Your task to perform on an android device: Turn on the flashlight Image 0: 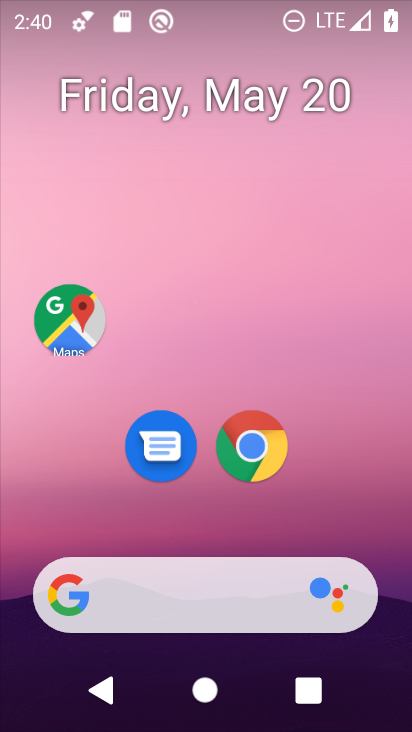
Step 0: drag from (204, 4) to (200, 574)
Your task to perform on an android device: Turn on the flashlight Image 1: 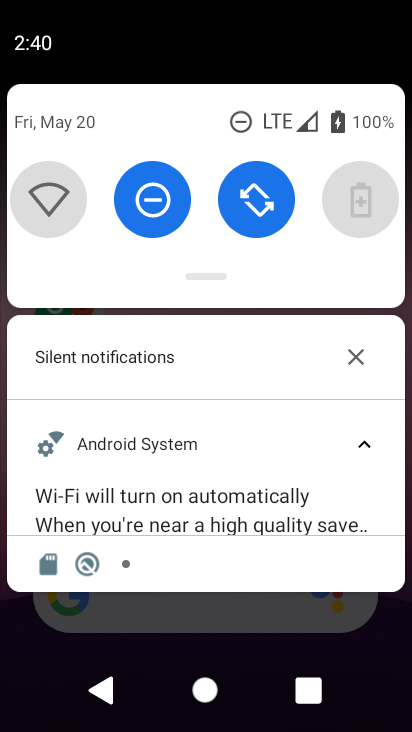
Step 1: task complete